Your task to perform on an android device: Do I have any events today? Image 0: 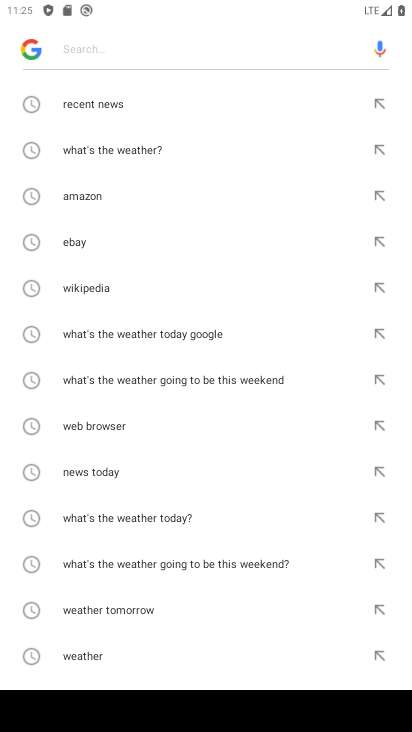
Step 0: press home button
Your task to perform on an android device: Do I have any events today? Image 1: 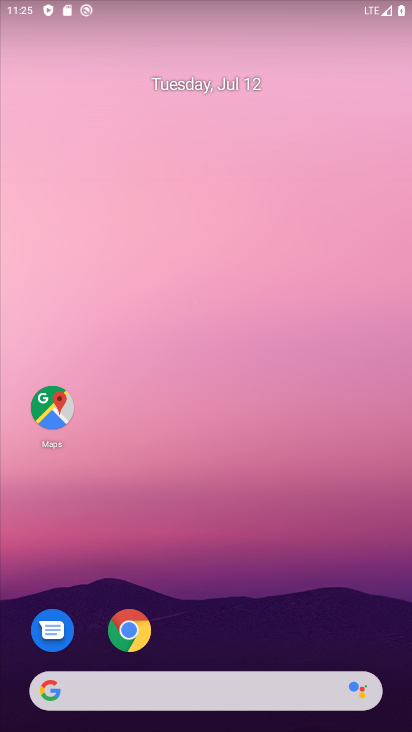
Step 1: drag from (235, 121) to (220, 50)
Your task to perform on an android device: Do I have any events today? Image 2: 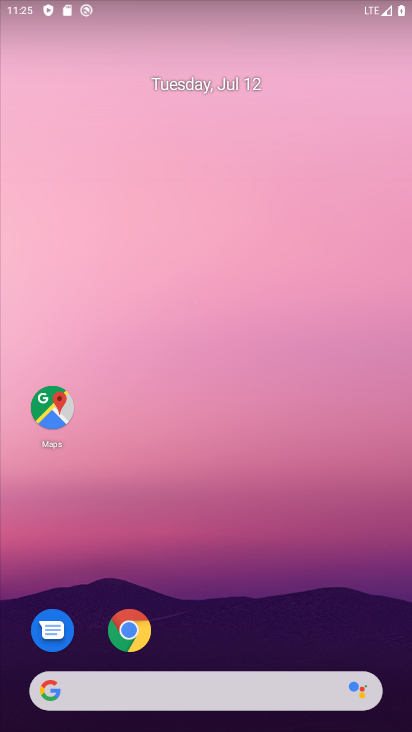
Step 2: drag from (384, 646) to (305, 67)
Your task to perform on an android device: Do I have any events today? Image 3: 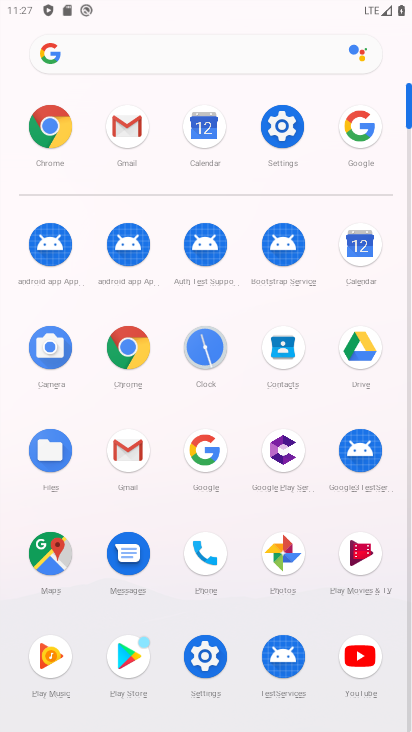
Step 3: click (356, 232)
Your task to perform on an android device: Do I have any events today? Image 4: 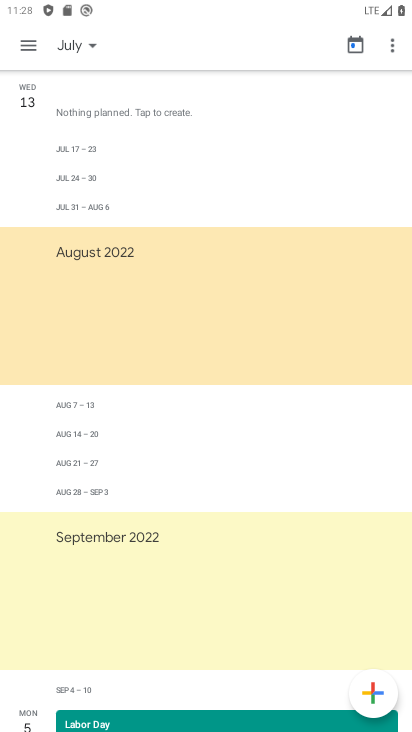
Step 4: task complete